Your task to perform on an android device: turn off location Image 0: 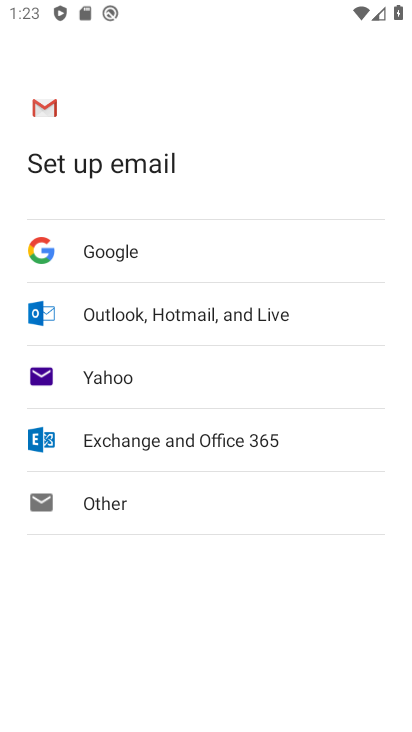
Step 0: press home button
Your task to perform on an android device: turn off location Image 1: 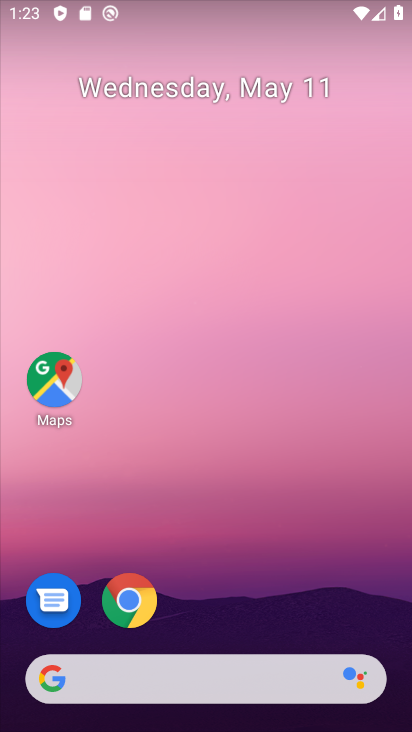
Step 1: drag from (253, 610) to (296, 304)
Your task to perform on an android device: turn off location Image 2: 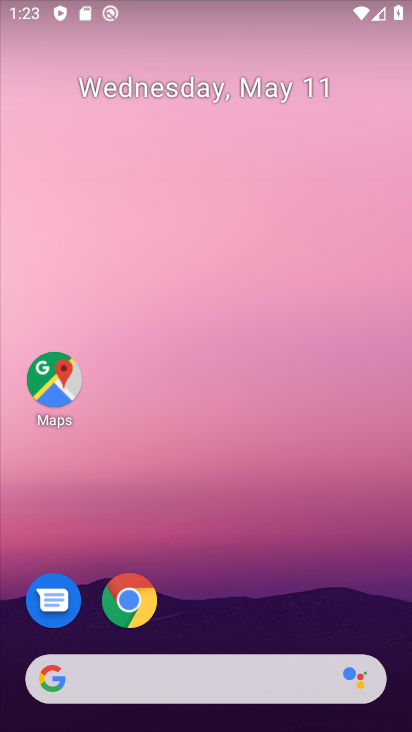
Step 2: drag from (244, 655) to (228, 302)
Your task to perform on an android device: turn off location Image 3: 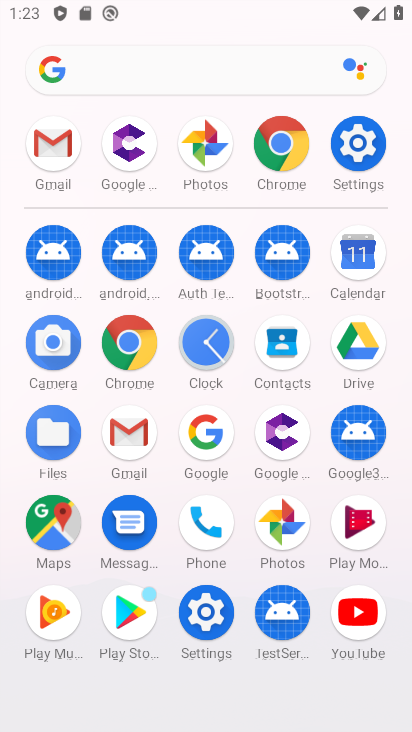
Step 3: click (355, 138)
Your task to perform on an android device: turn off location Image 4: 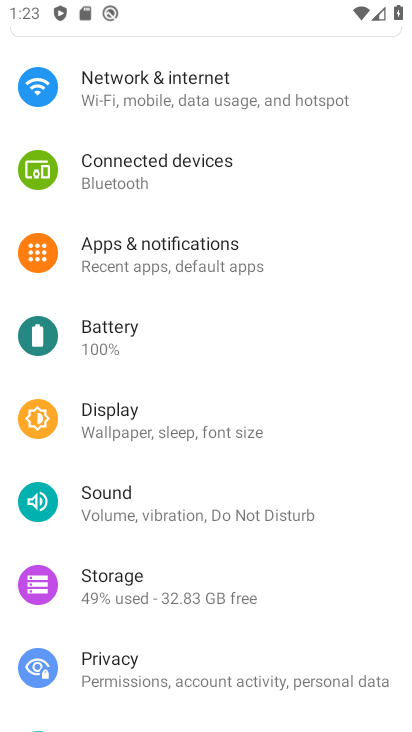
Step 4: drag from (158, 645) to (203, 308)
Your task to perform on an android device: turn off location Image 5: 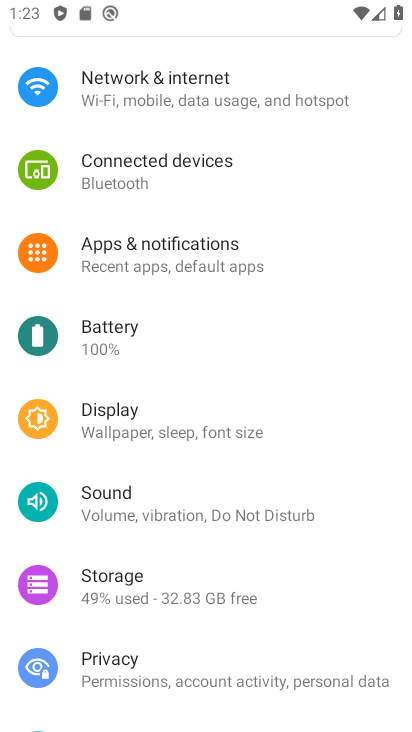
Step 5: drag from (167, 676) to (236, 610)
Your task to perform on an android device: turn off location Image 6: 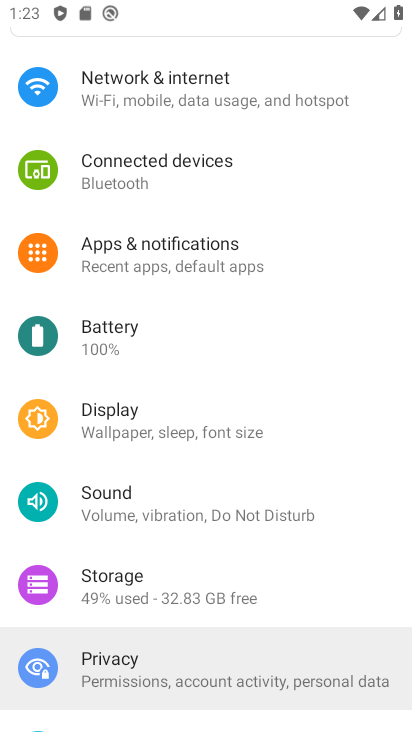
Step 6: drag from (155, 225) to (208, 601)
Your task to perform on an android device: turn off location Image 7: 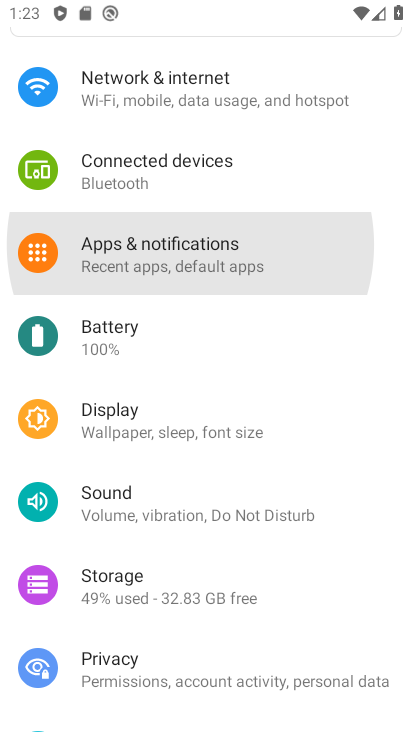
Step 7: drag from (197, 283) to (205, 595)
Your task to perform on an android device: turn off location Image 8: 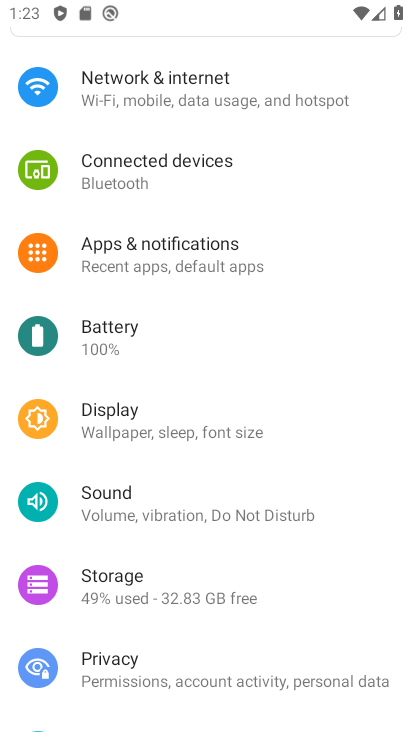
Step 8: drag from (183, 263) to (190, 487)
Your task to perform on an android device: turn off location Image 9: 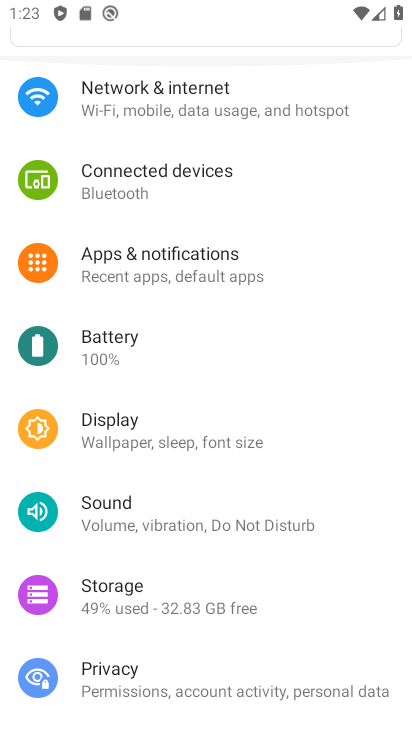
Step 9: drag from (135, 308) to (138, 424)
Your task to perform on an android device: turn off location Image 10: 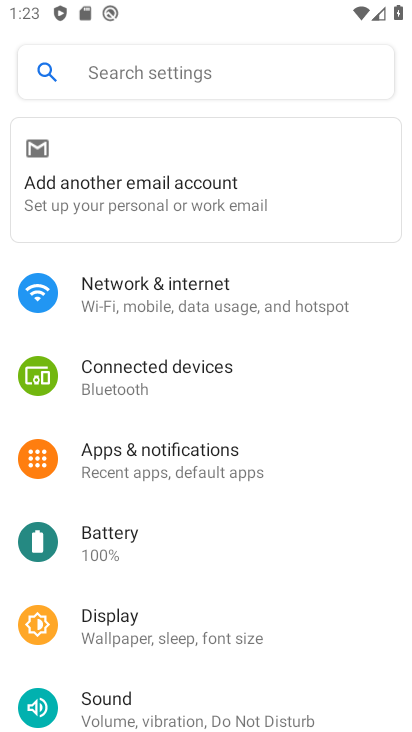
Step 10: drag from (146, 651) to (233, 156)
Your task to perform on an android device: turn off location Image 11: 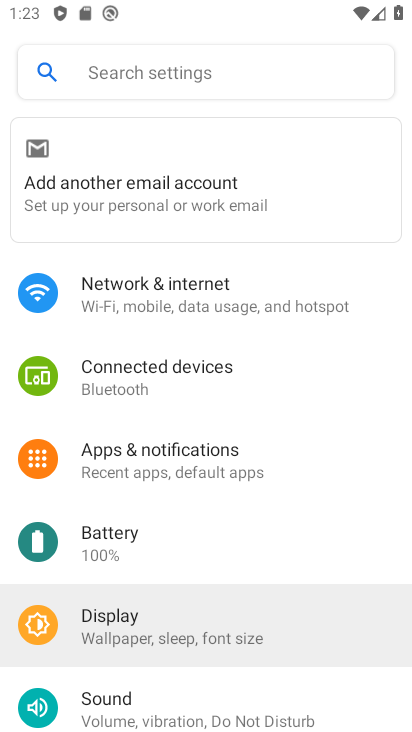
Step 11: drag from (104, 569) to (181, 321)
Your task to perform on an android device: turn off location Image 12: 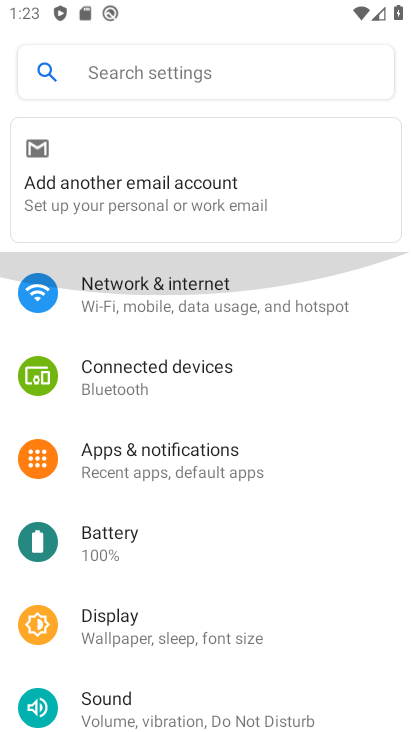
Step 12: drag from (186, 579) to (220, 335)
Your task to perform on an android device: turn off location Image 13: 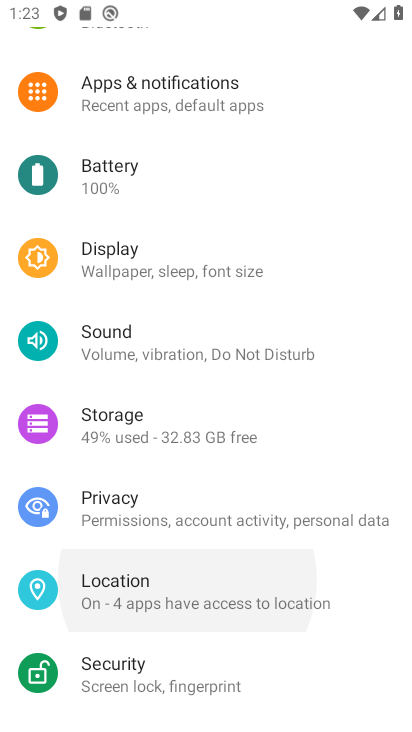
Step 13: drag from (224, 545) to (243, 307)
Your task to perform on an android device: turn off location Image 14: 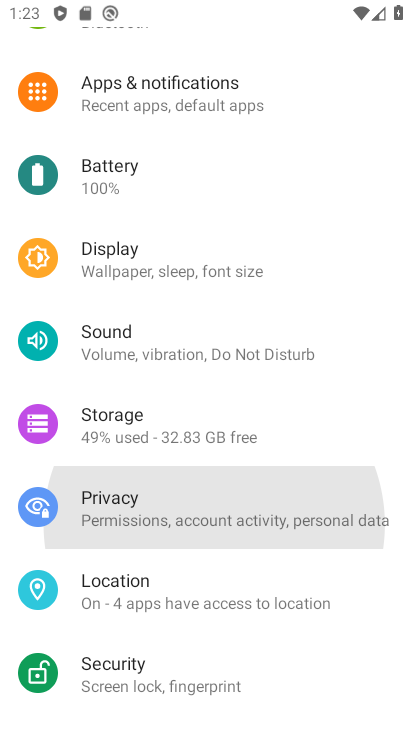
Step 14: drag from (213, 617) to (241, 407)
Your task to perform on an android device: turn off location Image 15: 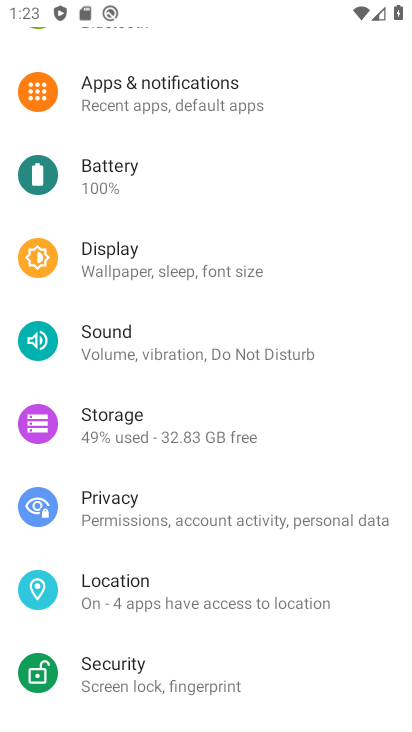
Step 15: click (180, 602)
Your task to perform on an android device: turn off location Image 16: 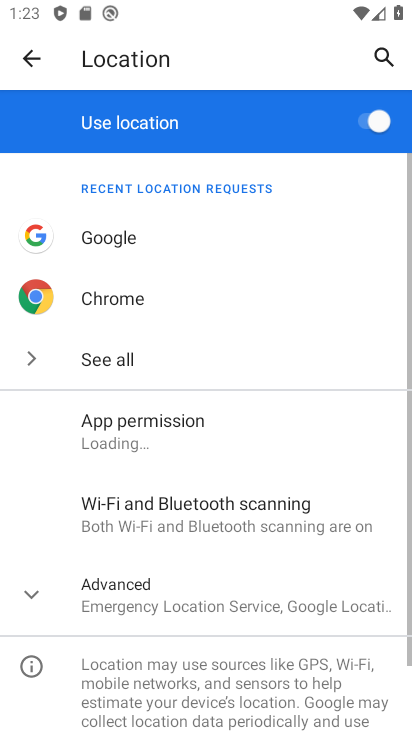
Step 16: click (358, 113)
Your task to perform on an android device: turn off location Image 17: 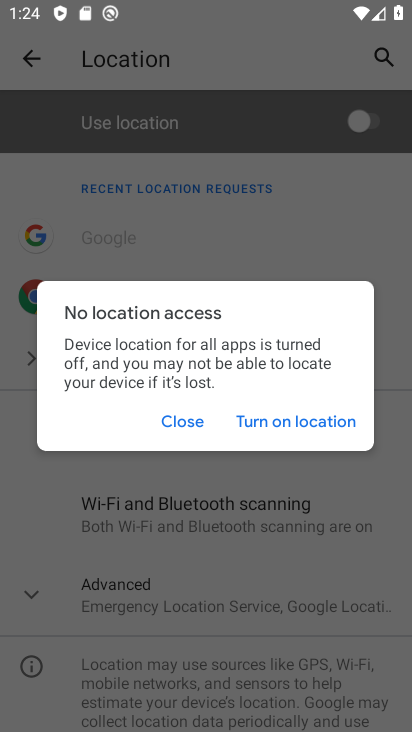
Step 17: click (181, 417)
Your task to perform on an android device: turn off location Image 18: 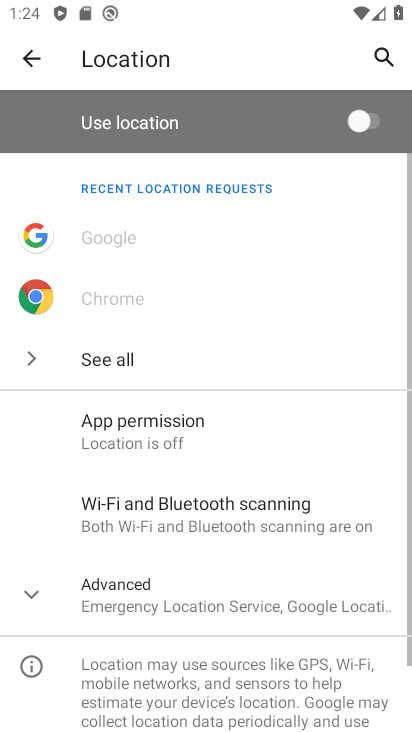
Step 18: task complete